Your task to perform on an android device: Go to network settings Image 0: 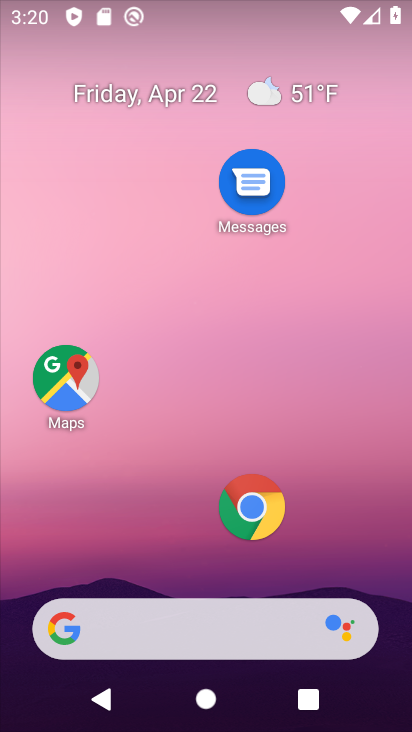
Step 0: drag from (172, 513) to (266, 57)
Your task to perform on an android device: Go to network settings Image 1: 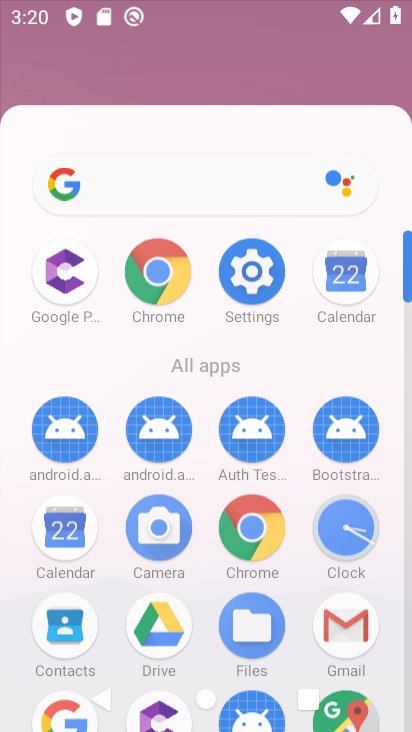
Step 1: click (260, 277)
Your task to perform on an android device: Go to network settings Image 2: 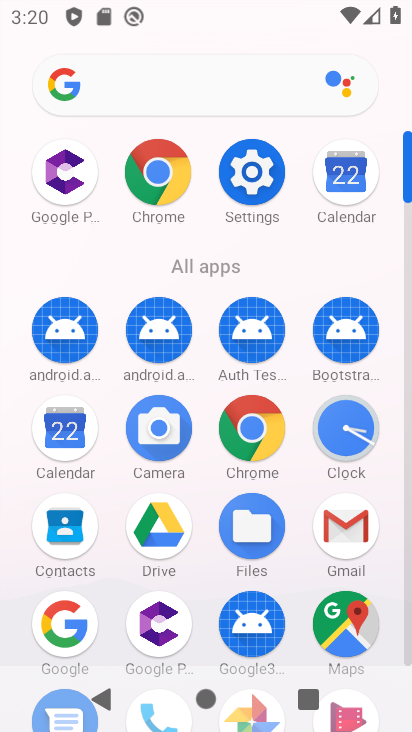
Step 2: click (249, 181)
Your task to perform on an android device: Go to network settings Image 3: 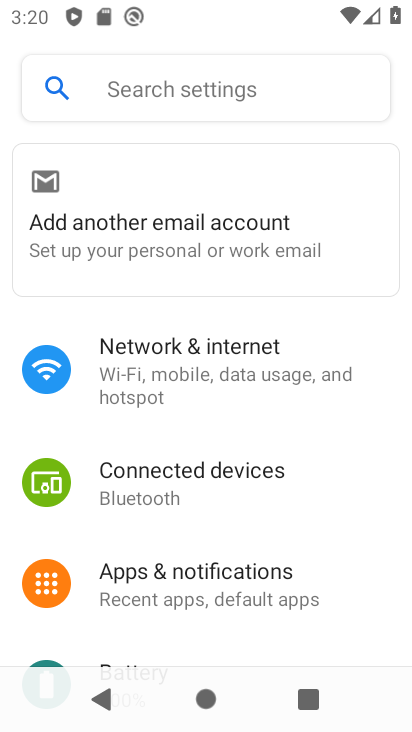
Step 3: click (189, 356)
Your task to perform on an android device: Go to network settings Image 4: 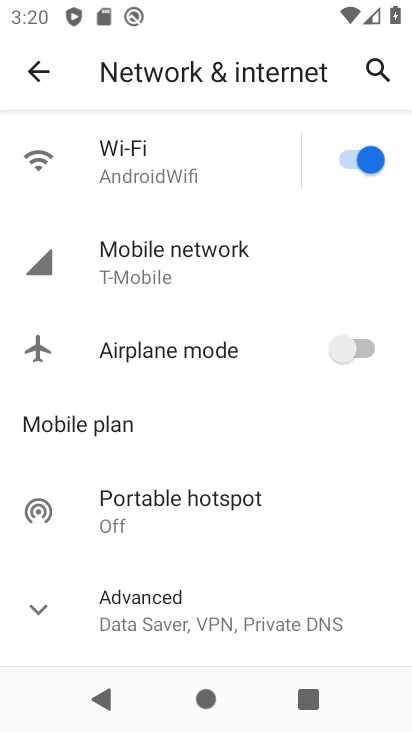
Step 4: task complete